Your task to perform on an android device: Open calendar and show me the fourth week of next month Image 0: 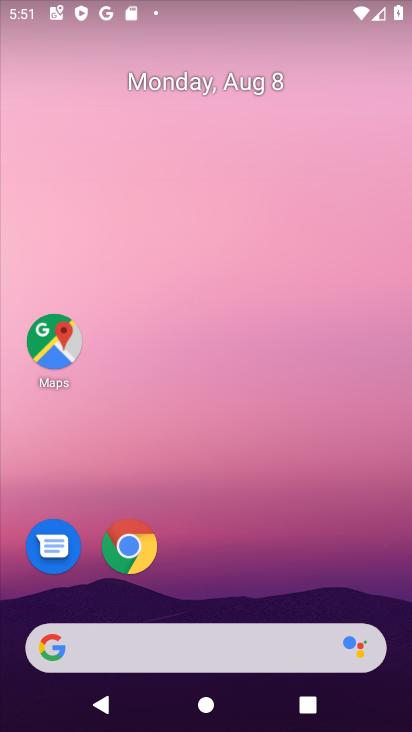
Step 0: drag from (242, 568) to (243, 160)
Your task to perform on an android device: Open calendar and show me the fourth week of next month Image 1: 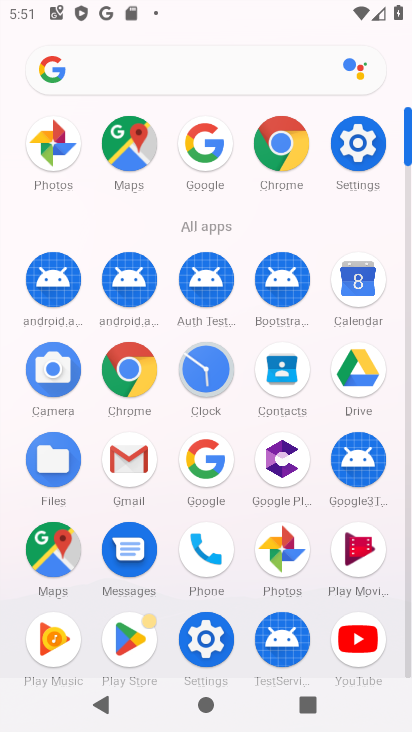
Step 1: click (365, 297)
Your task to perform on an android device: Open calendar and show me the fourth week of next month Image 2: 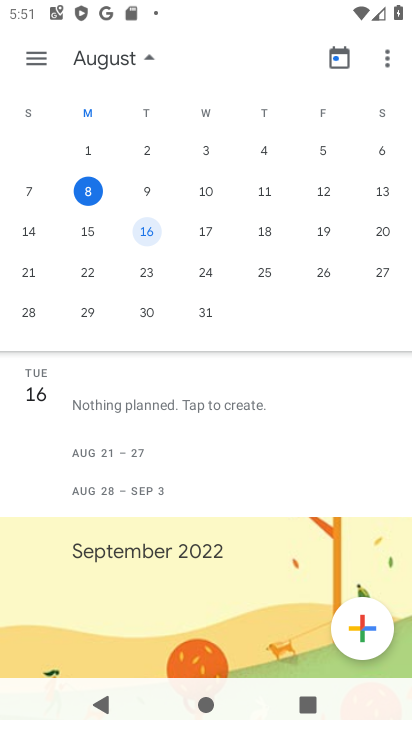
Step 2: drag from (338, 202) to (54, 206)
Your task to perform on an android device: Open calendar and show me the fourth week of next month Image 3: 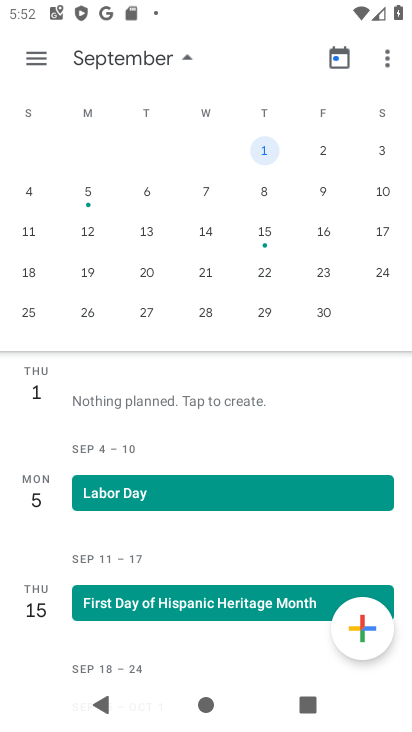
Step 3: click (37, 266)
Your task to perform on an android device: Open calendar and show me the fourth week of next month Image 4: 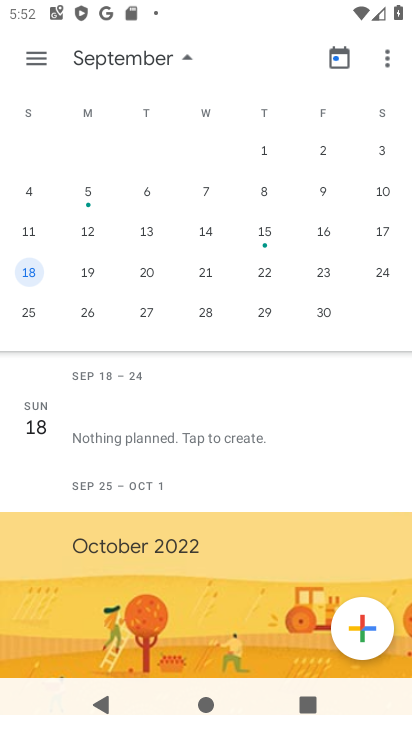
Step 4: task complete